Your task to perform on an android device: create a new album in the google photos Image 0: 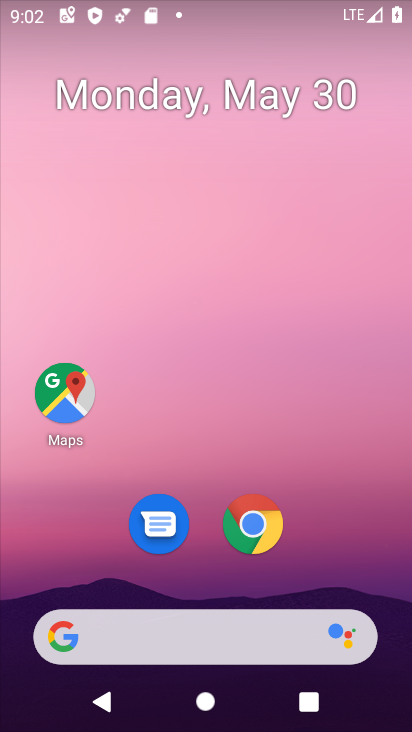
Step 0: drag from (223, 426) to (263, 0)
Your task to perform on an android device: create a new album in the google photos Image 1: 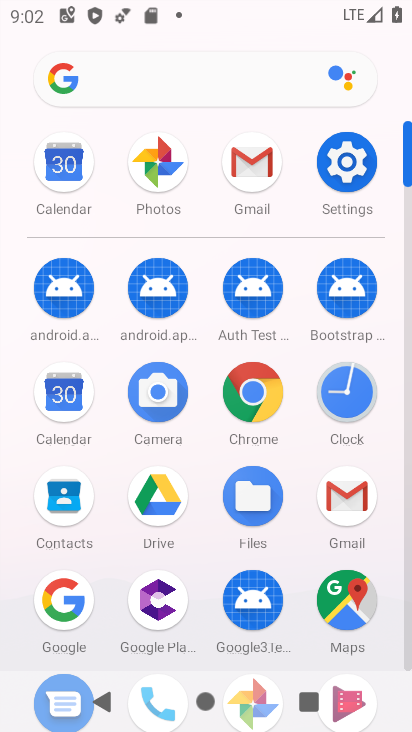
Step 1: click (169, 171)
Your task to perform on an android device: create a new album in the google photos Image 2: 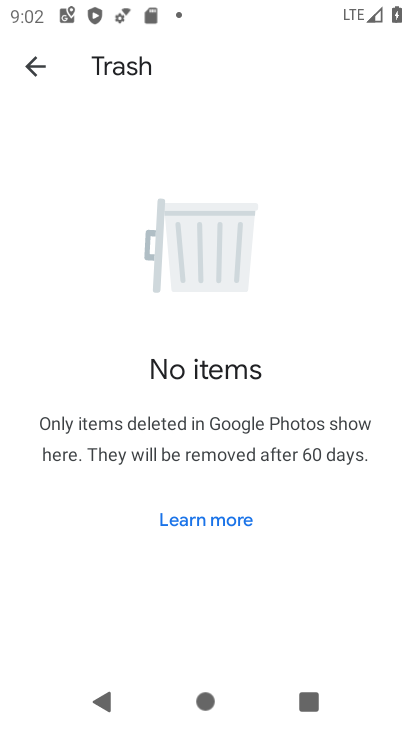
Step 2: click (35, 60)
Your task to perform on an android device: create a new album in the google photos Image 3: 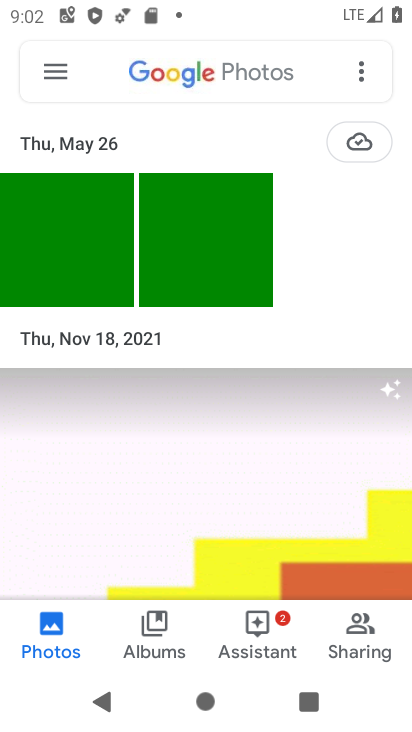
Step 3: click (149, 625)
Your task to perform on an android device: create a new album in the google photos Image 4: 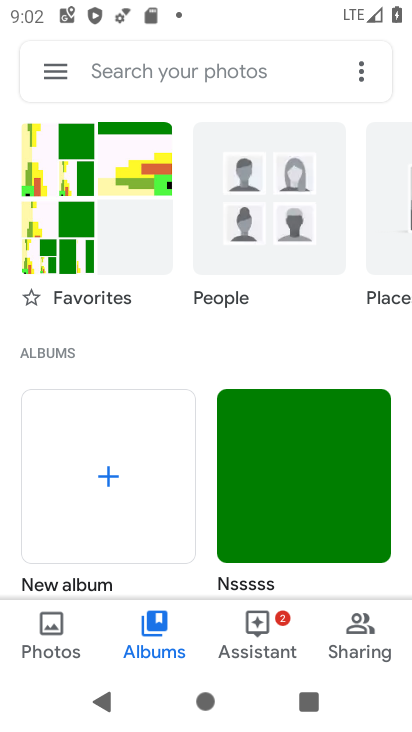
Step 4: click (110, 472)
Your task to perform on an android device: create a new album in the google photos Image 5: 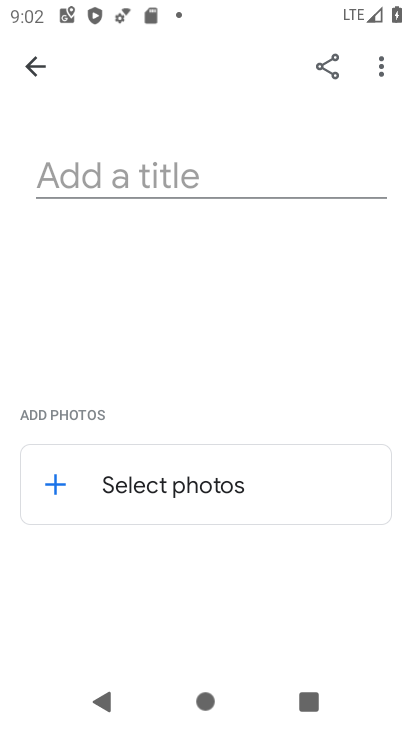
Step 5: click (161, 173)
Your task to perform on an android device: create a new album in the google photos Image 6: 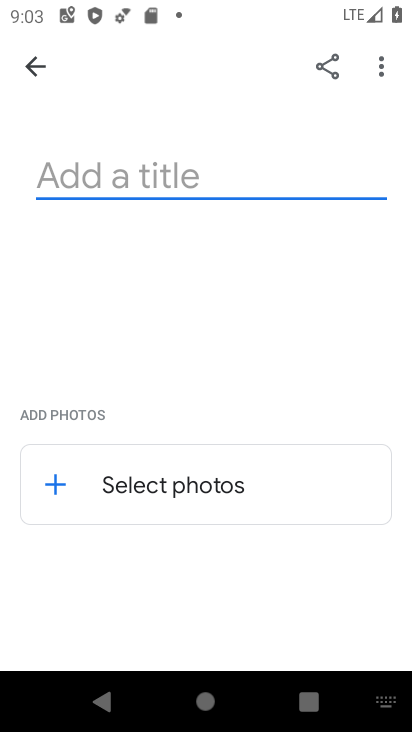
Step 6: type "Shimla"
Your task to perform on an android device: create a new album in the google photos Image 7: 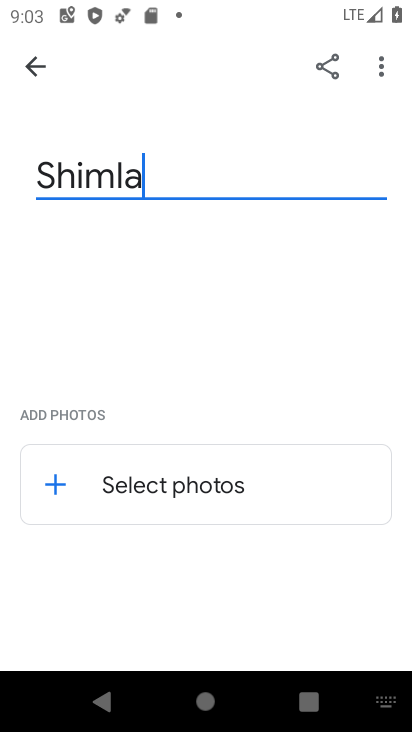
Step 7: click (60, 480)
Your task to perform on an android device: create a new album in the google photos Image 8: 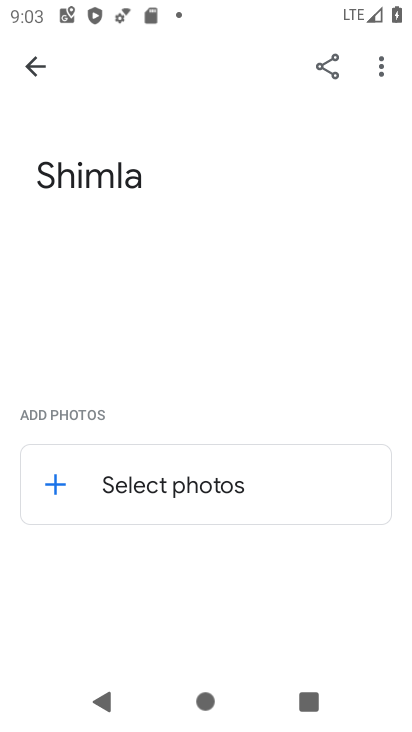
Step 8: click (52, 485)
Your task to perform on an android device: create a new album in the google photos Image 9: 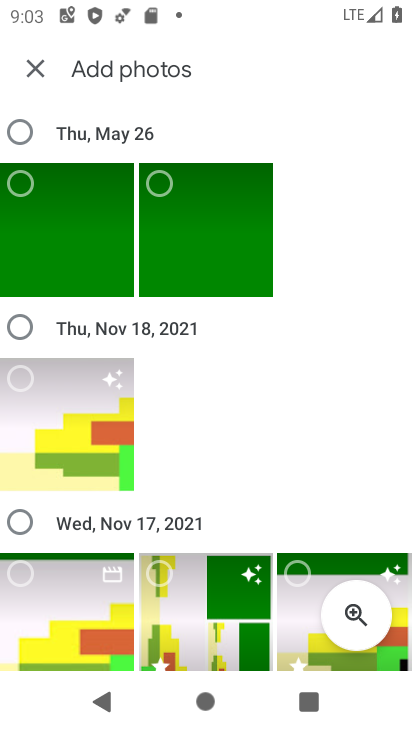
Step 9: click (14, 368)
Your task to perform on an android device: create a new album in the google photos Image 10: 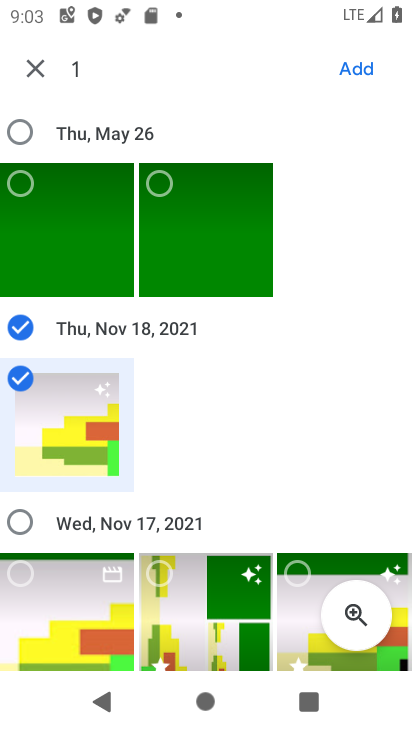
Step 10: click (358, 67)
Your task to perform on an android device: create a new album in the google photos Image 11: 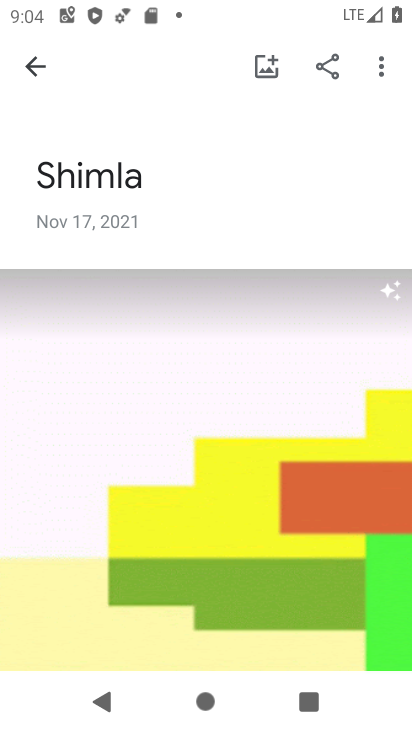
Step 11: task complete